Your task to perform on an android device: Show me the alarms in the clock app Image 0: 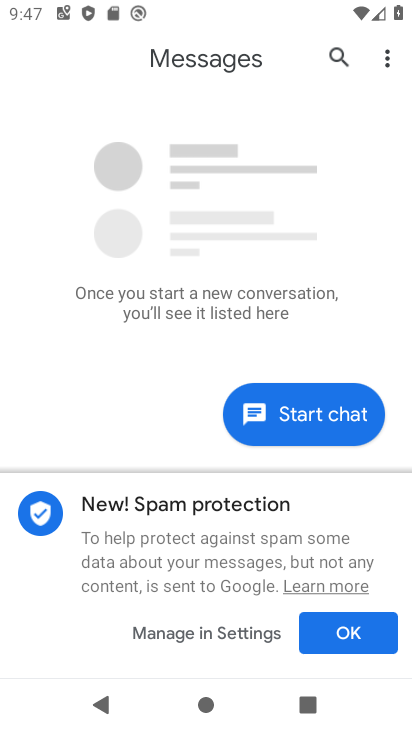
Step 0: press home button
Your task to perform on an android device: Show me the alarms in the clock app Image 1: 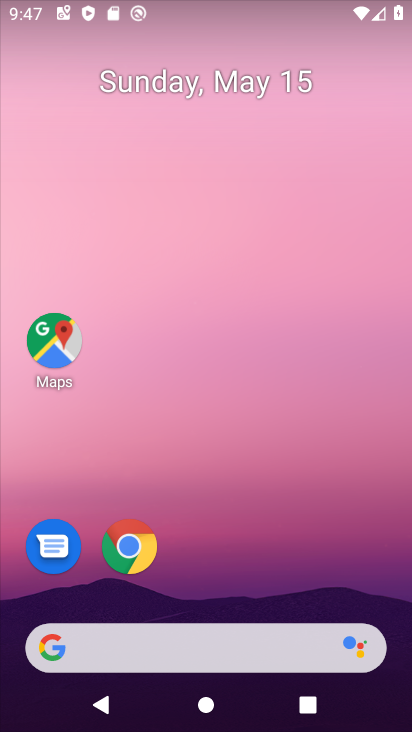
Step 1: drag from (262, 577) to (332, 193)
Your task to perform on an android device: Show me the alarms in the clock app Image 2: 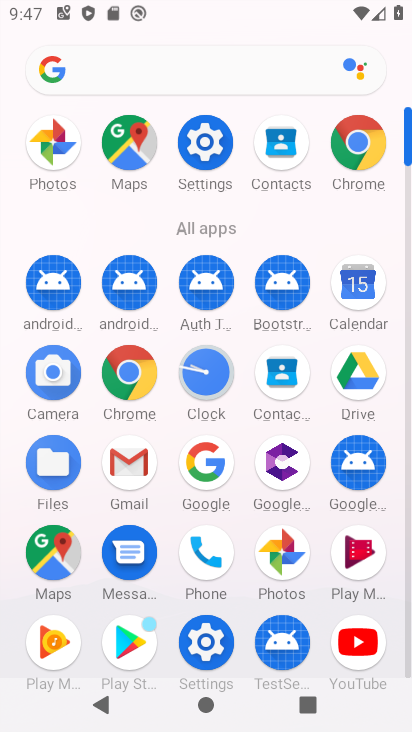
Step 2: click (210, 381)
Your task to perform on an android device: Show me the alarms in the clock app Image 3: 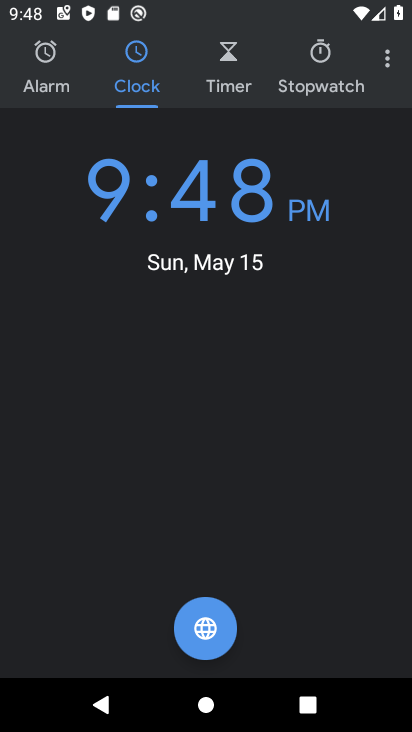
Step 3: click (43, 71)
Your task to perform on an android device: Show me the alarms in the clock app Image 4: 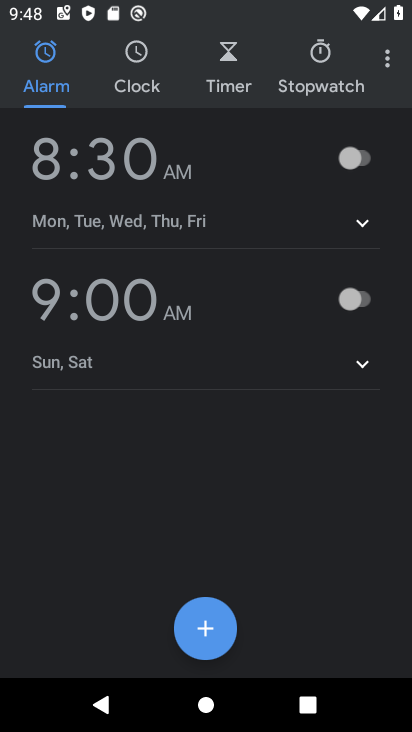
Step 4: task complete